Your task to perform on an android device: Open the phone app and click the voicemail tab. Image 0: 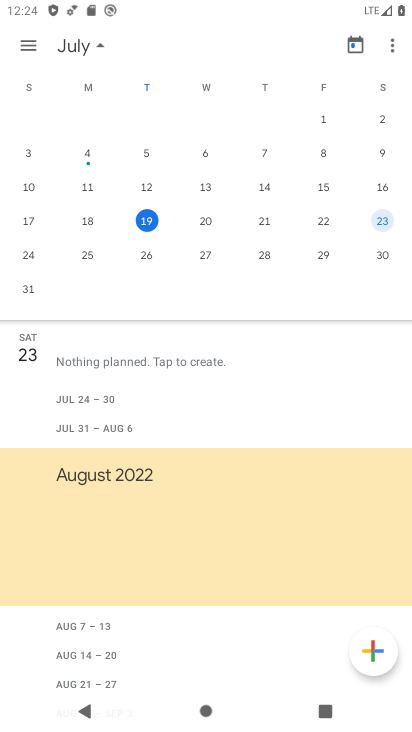
Step 0: press home button
Your task to perform on an android device: Open the phone app and click the voicemail tab. Image 1: 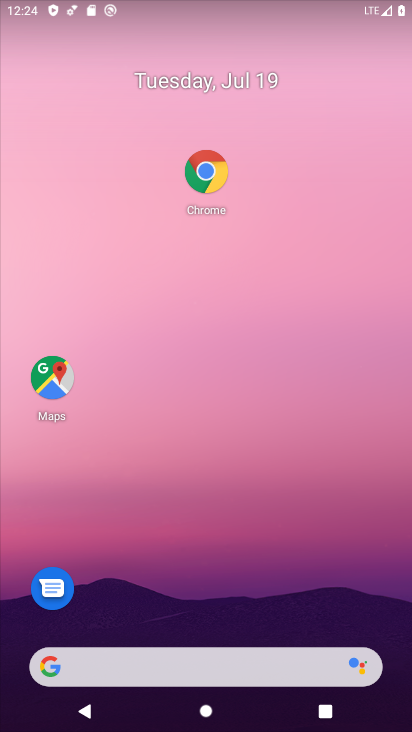
Step 1: drag from (189, 630) to (165, 141)
Your task to perform on an android device: Open the phone app and click the voicemail tab. Image 2: 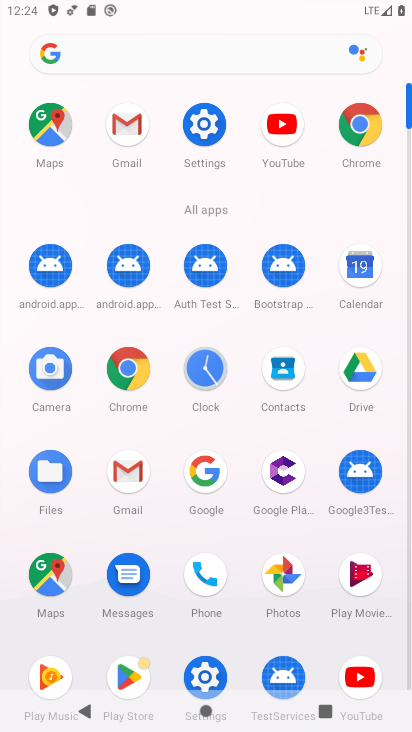
Step 2: click (215, 580)
Your task to perform on an android device: Open the phone app and click the voicemail tab. Image 3: 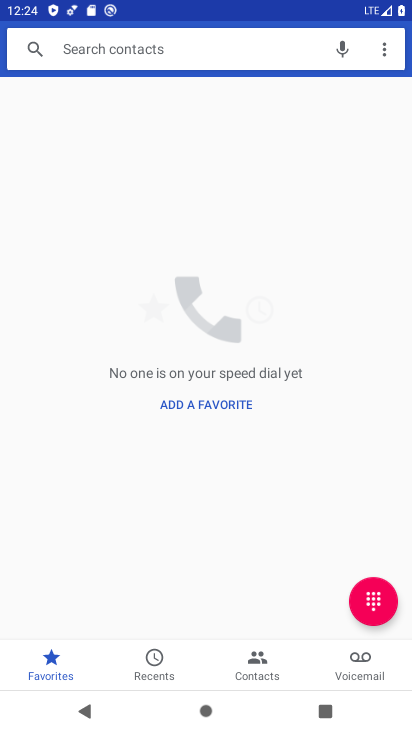
Step 3: click (363, 666)
Your task to perform on an android device: Open the phone app and click the voicemail tab. Image 4: 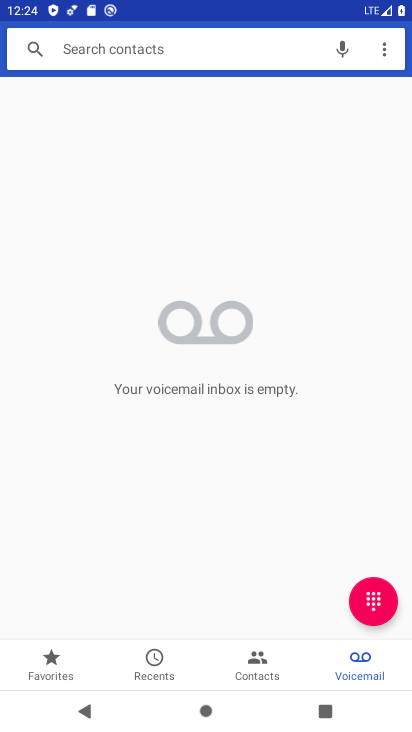
Step 4: task complete